Your task to perform on an android device: What is the recent news? Image 0: 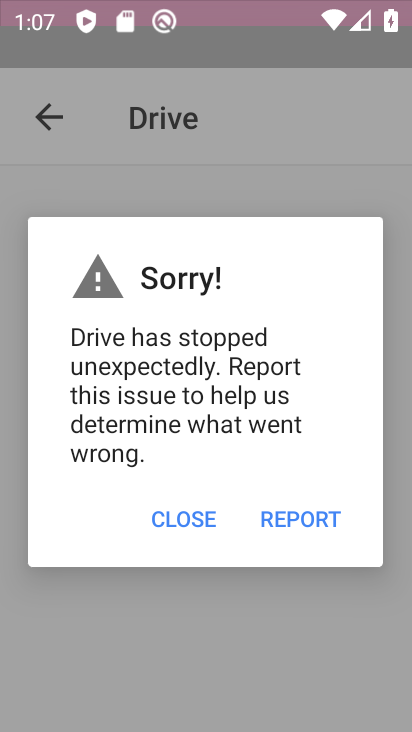
Step 0: click (247, 534)
Your task to perform on an android device: What is the recent news? Image 1: 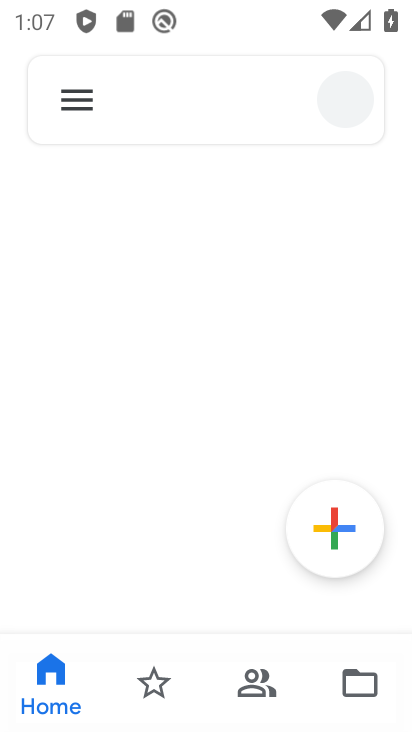
Step 1: click (260, 529)
Your task to perform on an android device: What is the recent news? Image 2: 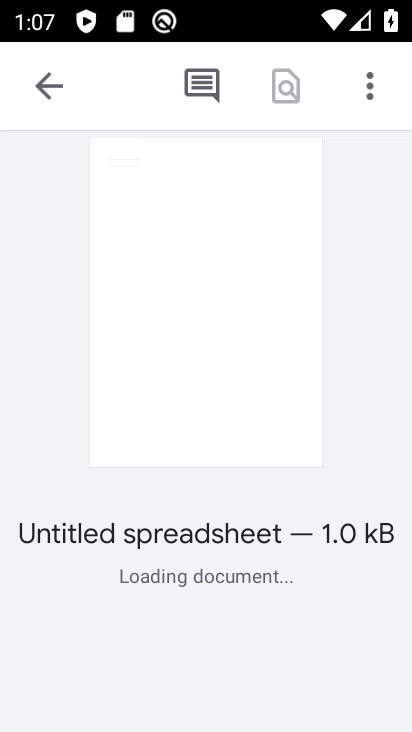
Step 2: task complete